Your task to perform on an android device: turn on priority inbox in the gmail app Image 0: 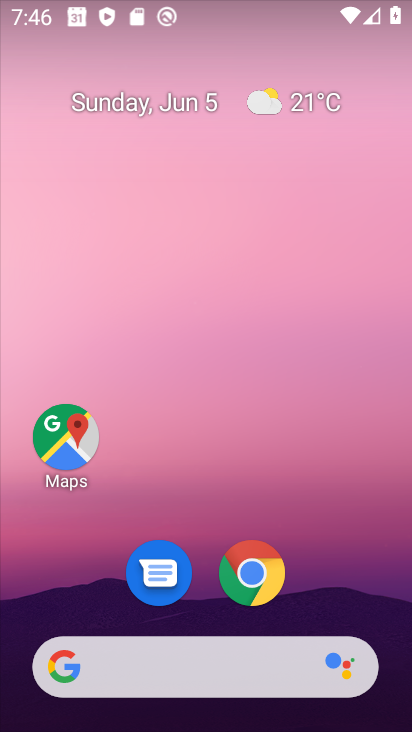
Step 0: drag from (319, 533) to (330, 218)
Your task to perform on an android device: turn on priority inbox in the gmail app Image 1: 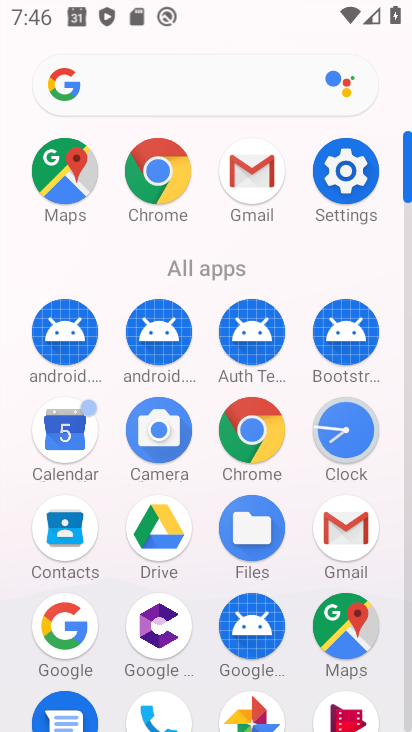
Step 1: click (336, 519)
Your task to perform on an android device: turn on priority inbox in the gmail app Image 2: 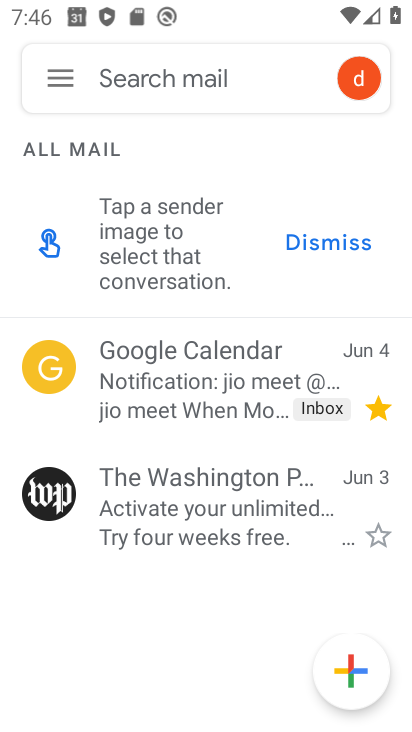
Step 2: click (66, 76)
Your task to perform on an android device: turn on priority inbox in the gmail app Image 3: 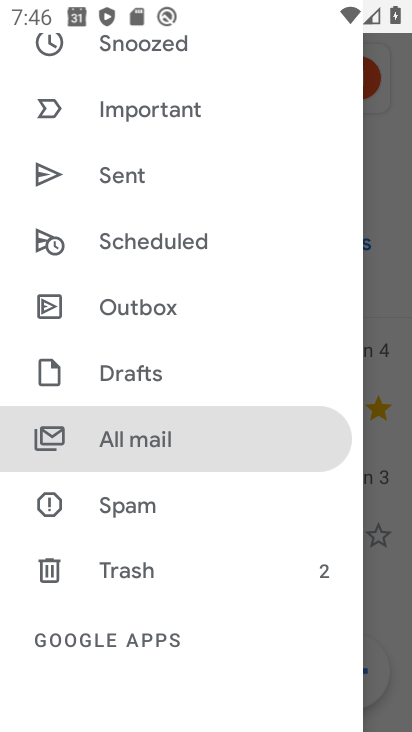
Step 3: drag from (151, 123) to (194, 630)
Your task to perform on an android device: turn on priority inbox in the gmail app Image 4: 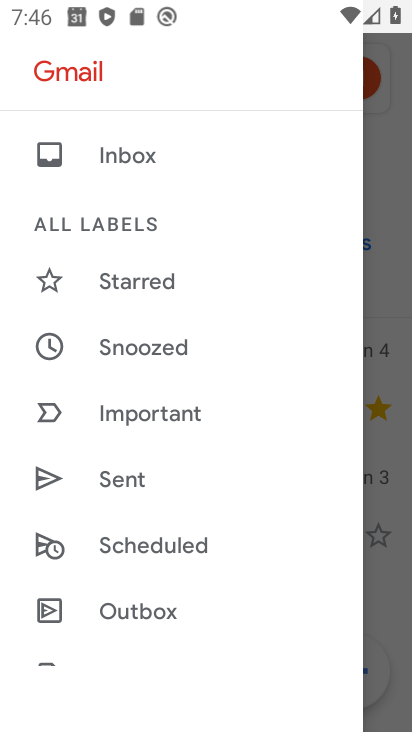
Step 4: drag from (145, 551) to (161, 175)
Your task to perform on an android device: turn on priority inbox in the gmail app Image 5: 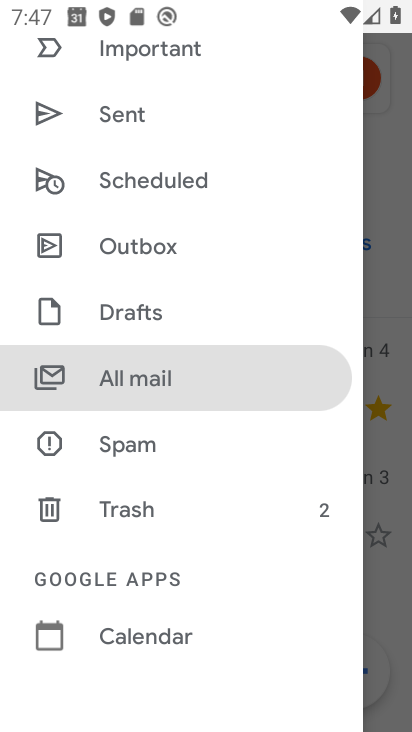
Step 5: drag from (135, 602) to (172, 159)
Your task to perform on an android device: turn on priority inbox in the gmail app Image 6: 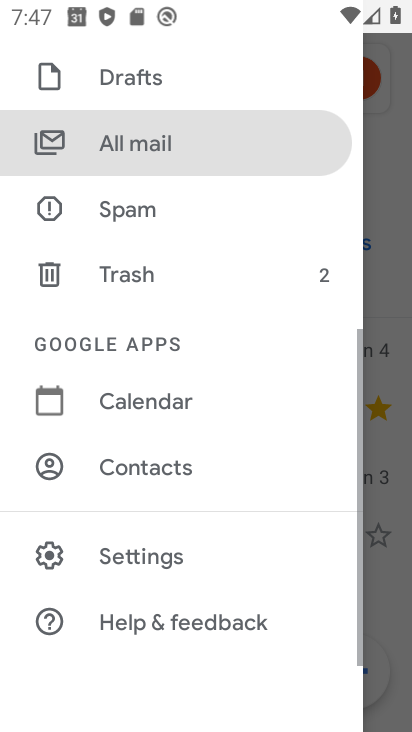
Step 6: click (123, 560)
Your task to perform on an android device: turn on priority inbox in the gmail app Image 7: 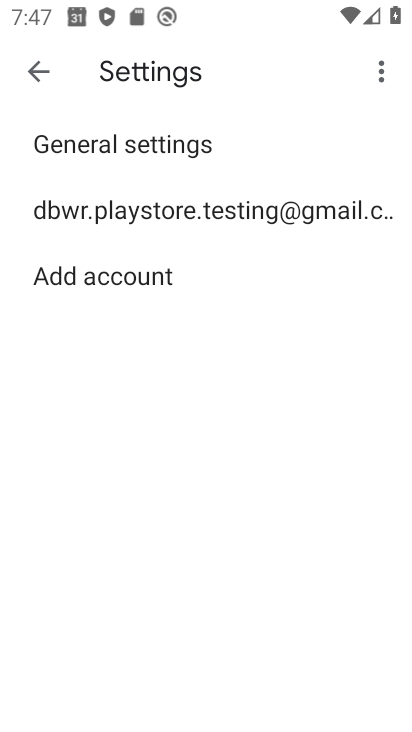
Step 7: click (131, 207)
Your task to perform on an android device: turn on priority inbox in the gmail app Image 8: 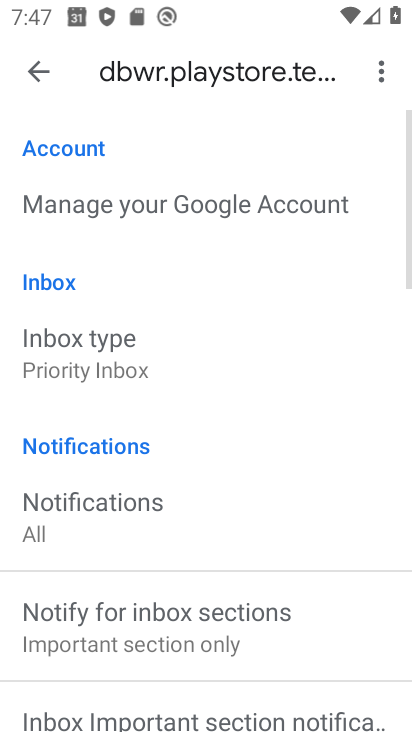
Step 8: click (117, 358)
Your task to perform on an android device: turn on priority inbox in the gmail app Image 9: 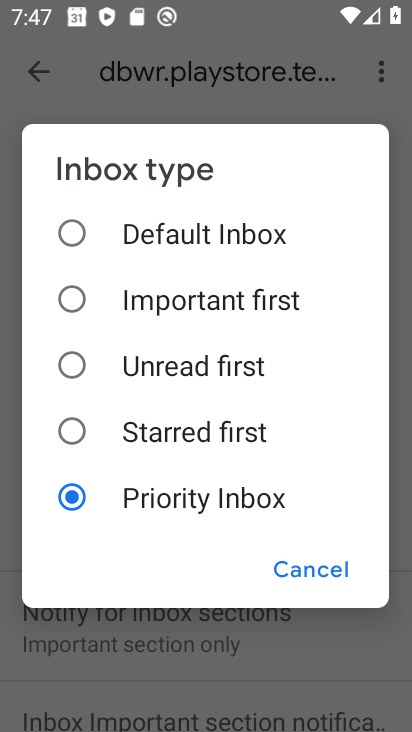
Step 9: task complete